Your task to perform on an android device: open wifi settings Image 0: 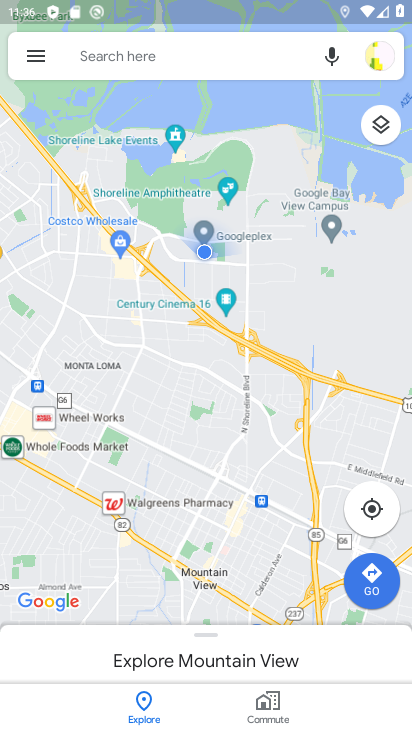
Step 0: press home button
Your task to perform on an android device: open wifi settings Image 1: 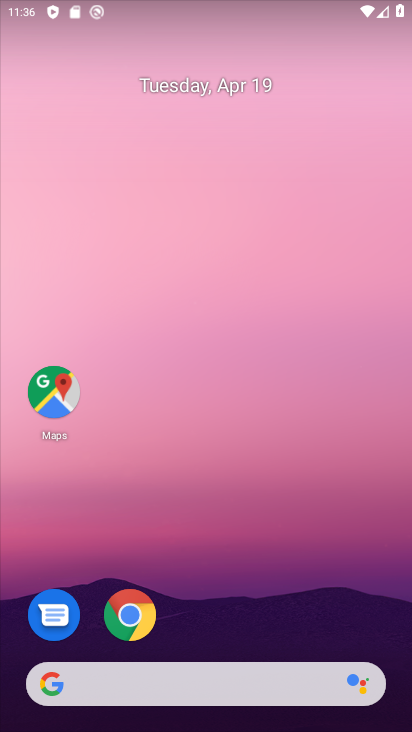
Step 1: drag from (216, 554) to (222, 159)
Your task to perform on an android device: open wifi settings Image 2: 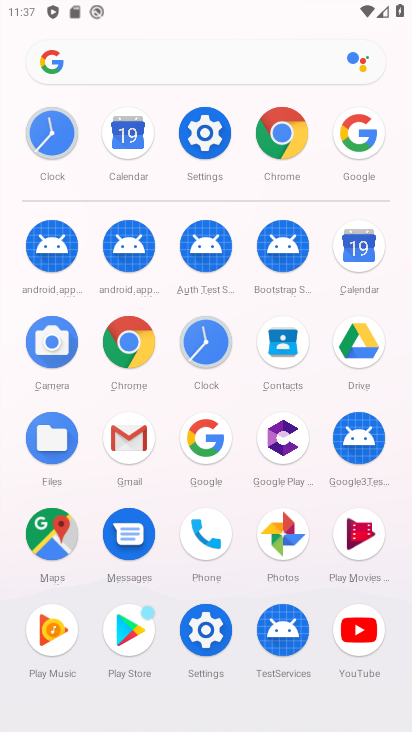
Step 2: click (201, 131)
Your task to perform on an android device: open wifi settings Image 3: 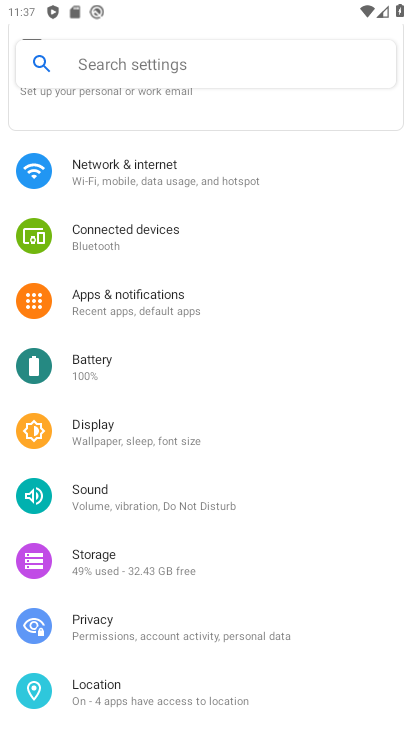
Step 3: click (189, 182)
Your task to perform on an android device: open wifi settings Image 4: 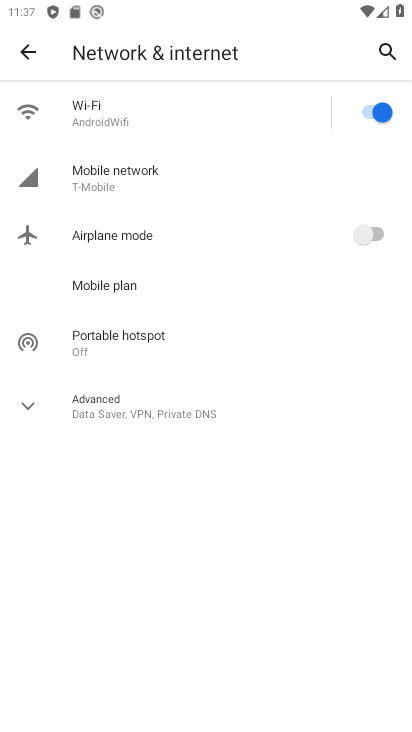
Step 4: click (154, 122)
Your task to perform on an android device: open wifi settings Image 5: 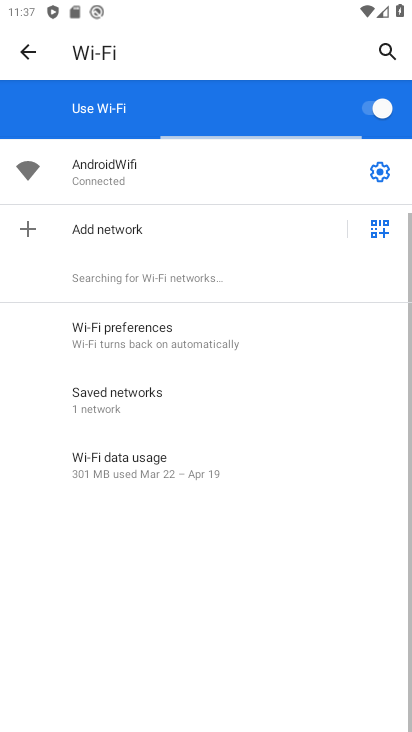
Step 5: click (391, 178)
Your task to perform on an android device: open wifi settings Image 6: 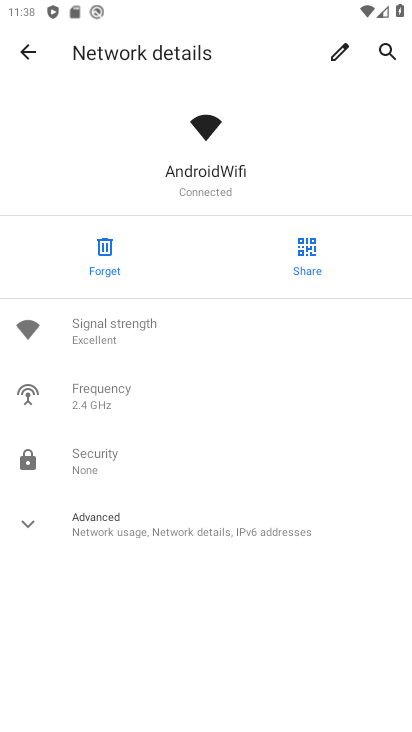
Step 6: task complete